Your task to perform on an android device: create a new album in the google photos Image 0: 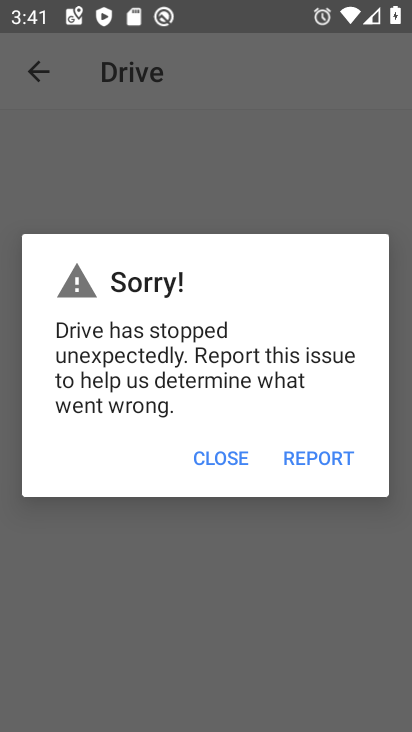
Step 0: press home button
Your task to perform on an android device: create a new album in the google photos Image 1: 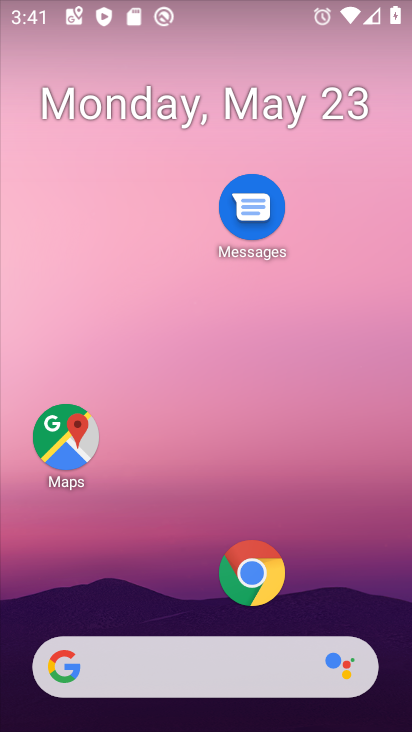
Step 1: drag from (297, 701) to (264, 110)
Your task to perform on an android device: create a new album in the google photos Image 2: 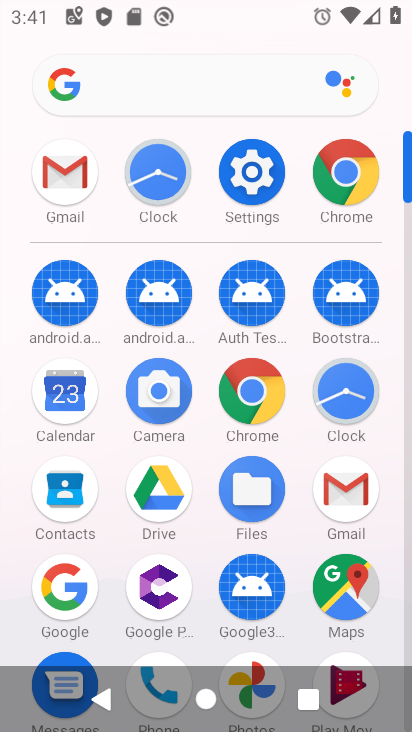
Step 2: drag from (278, 635) to (316, 306)
Your task to perform on an android device: create a new album in the google photos Image 3: 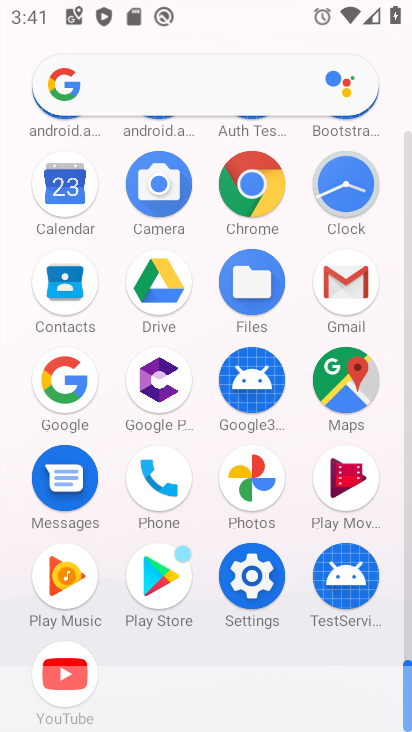
Step 3: click (264, 461)
Your task to perform on an android device: create a new album in the google photos Image 4: 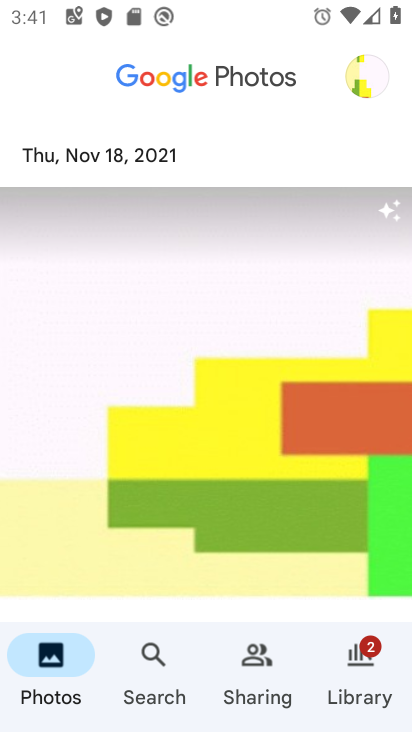
Step 4: click (374, 656)
Your task to perform on an android device: create a new album in the google photos Image 5: 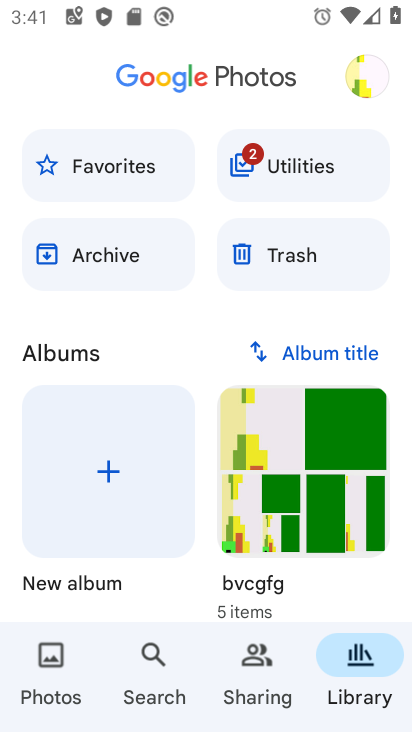
Step 5: click (101, 451)
Your task to perform on an android device: create a new album in the google photos Image 6: 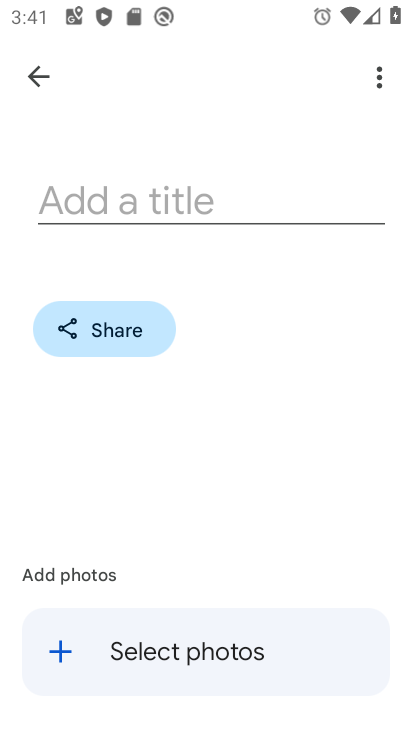
Step 6: click (199, 199)
Your task to perform on an android device: create a new album in the google photos Image 7: 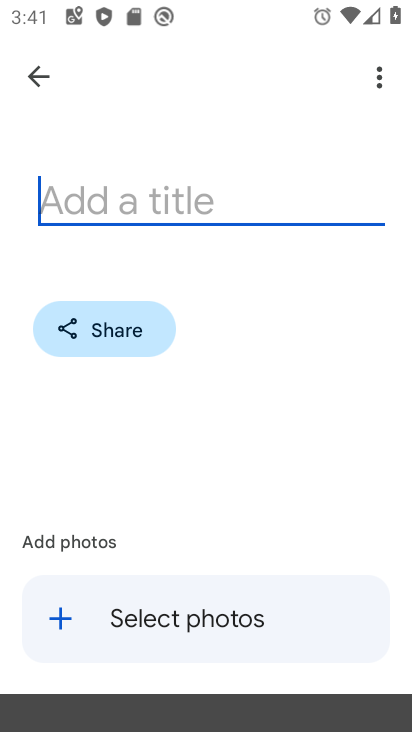
Step 7: click (199, 199)
Your task to perform on an android device: create a new album in the google photos Image 8: 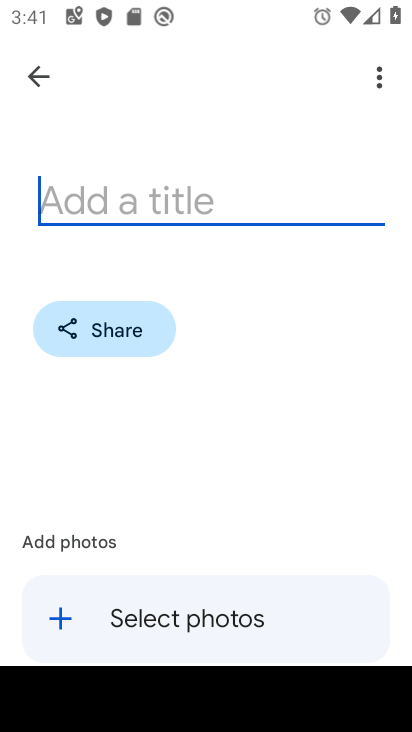
Step 8: type "hjlkhgg"
Your task to perform on an android device: create a new album in the google photos Image 9: 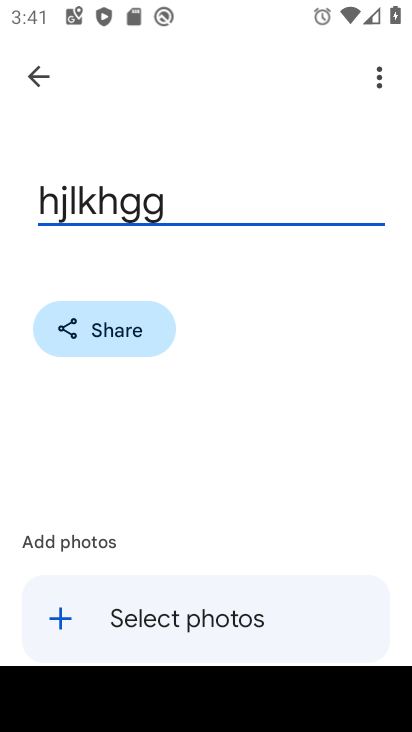
Step 9: click (60, 618)
Your task to perform on an android device: create a new album in the google photos Image 10: 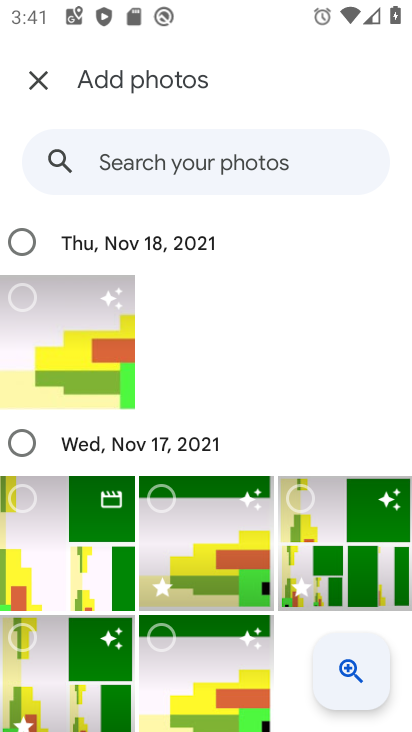
Step 10: click (46, 379)
Your task to perform on an android device: create a new album in the google photos Image 11: 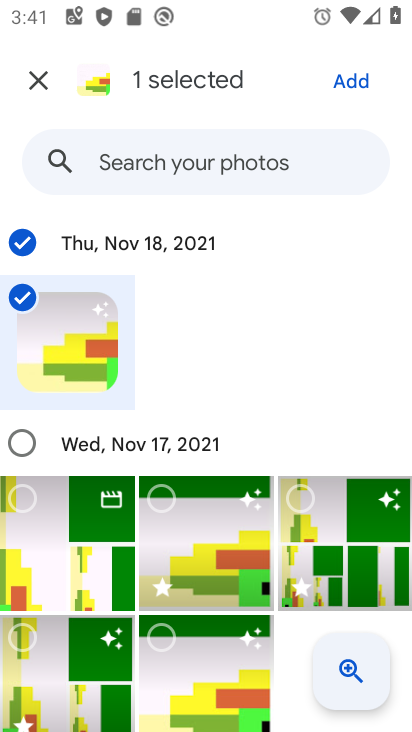
Step 11: click (334, 84)
Your task to perform on an android device: create a new album in the google photos Image 12: 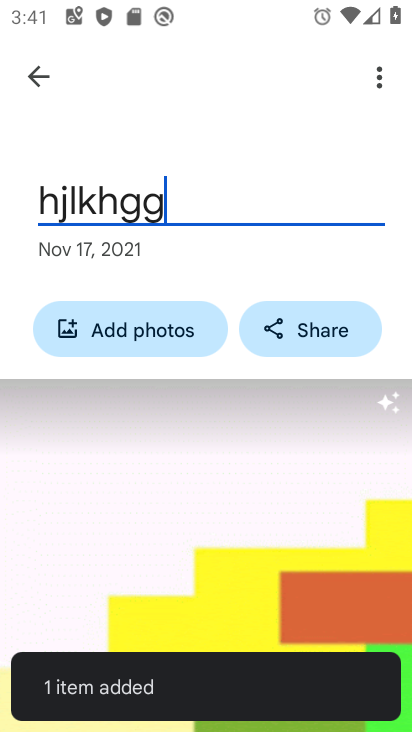
Step 12: task complete